Your task to perform on an android device: turn pop-ups off in chrome Image 0: 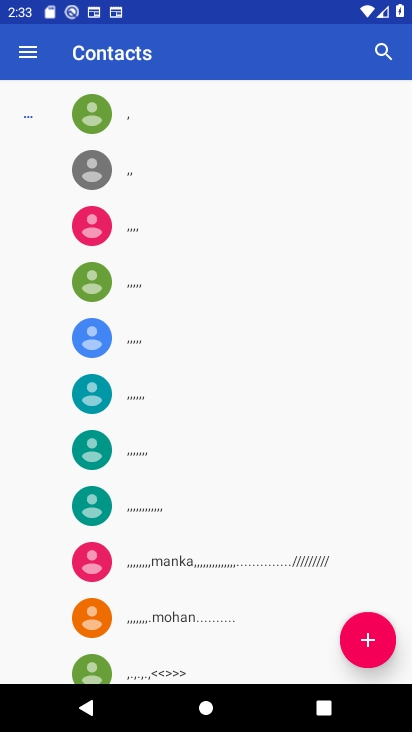
Step 0: press home button
Your task to perform on an android device: turn pop-ups off in chrome Image 1: 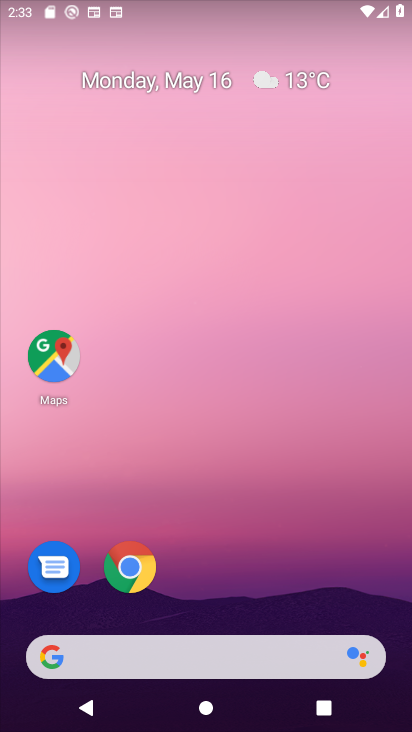
Step 1: click (137, 564)
Your task to perform on an android device: turn pop-ups off in chrome Image 2: 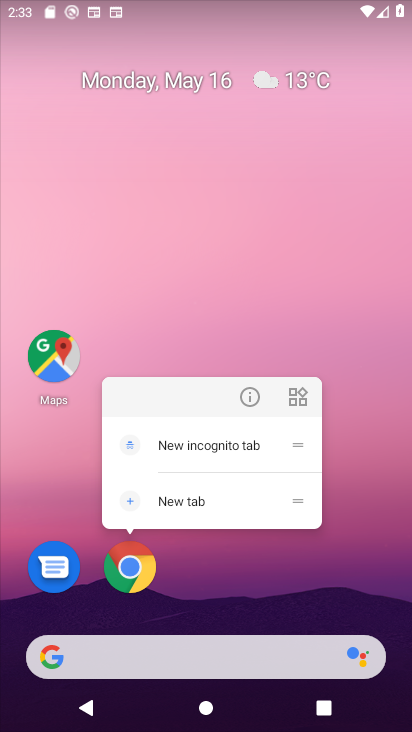
Step 2: click (141, 575)
Your task to perform on an android device: turn pop-ups off in chrome Image 3: 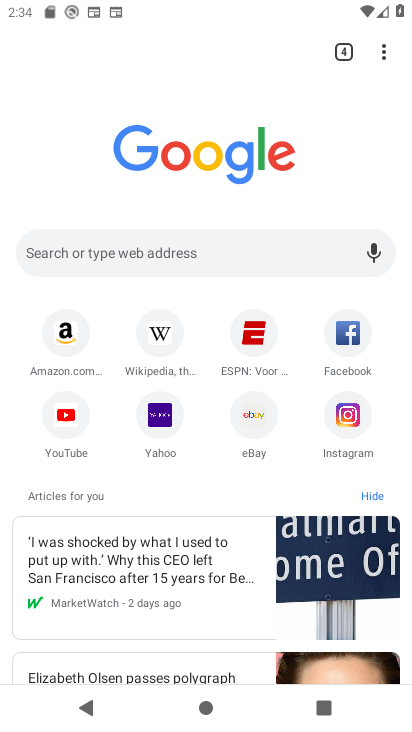
Step 3: click (385, 60)
Your task to perform on an android device: turn pop-ups off in chrome Image 4: 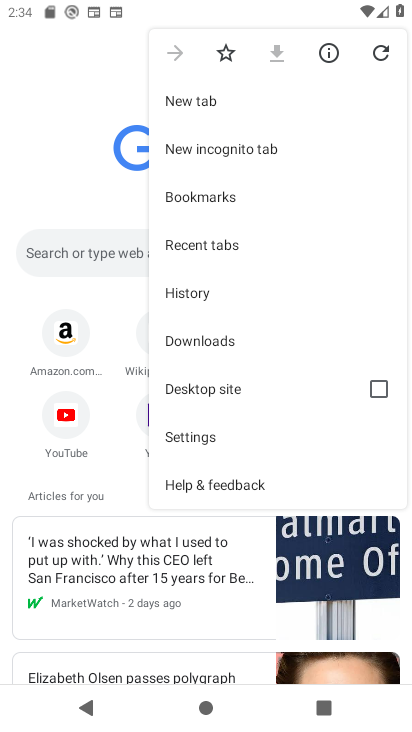
Step 4: click (211, 436)
Your task to perform on an android device: turn pop-ups off in chrome Image 5: 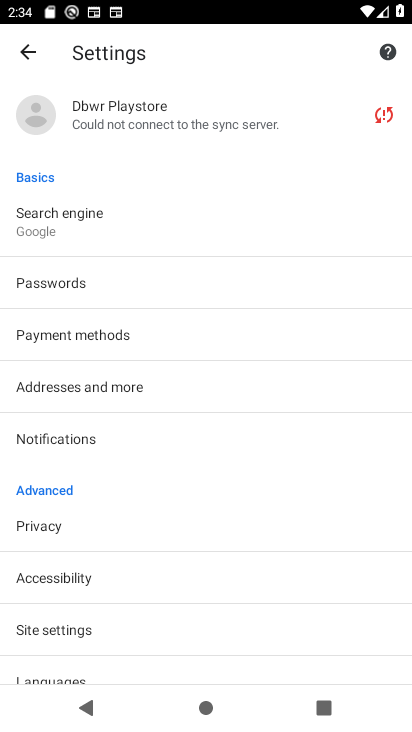
Step 5: click (112, 617)
Your task to perform on an android device: turn pop-ups off in chrome Image 6: 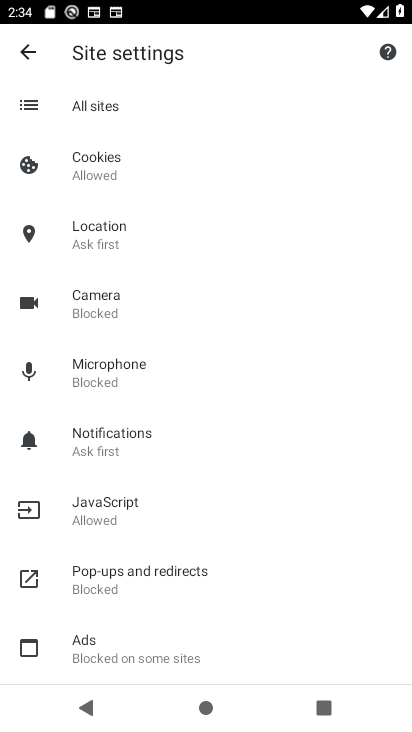
Step 6: drag from (167, 545) to (162, 337)
Your task to perform on an android device: turn pop-ups off in chrome Image 7: 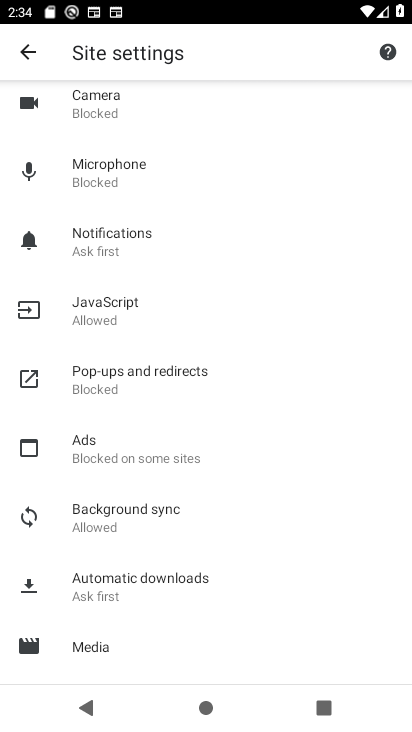
Step 7: click (117, 370)
Your task to perform on an android device: turn pop-ups off in chrome Image 8: 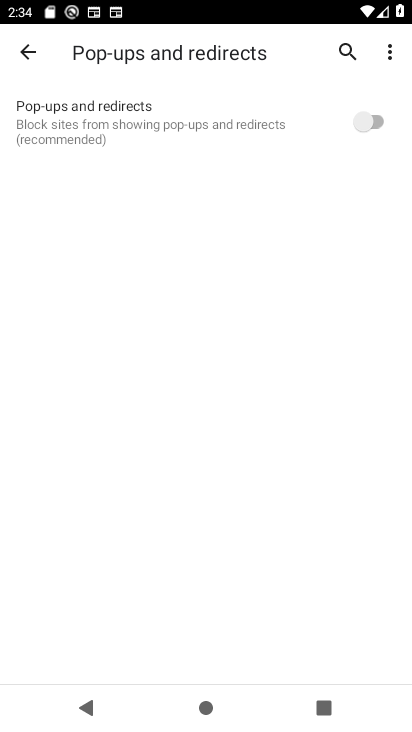
Step 8: task complete